Your task to perform on an android device: find which apps use the phone's location Image 0: 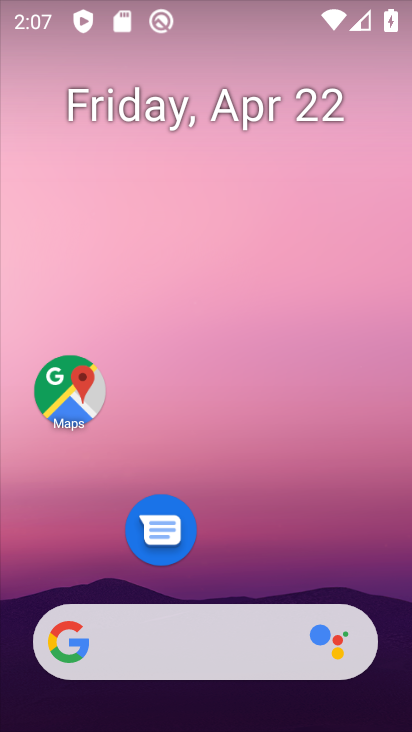
Step 0: drag from (245, 545) to (195, 14)
Your task to perform on an android device: find which apps use the phone's location Image 1: 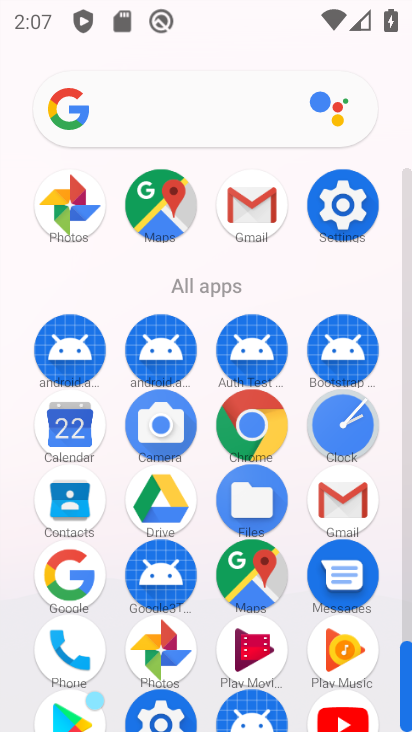
Step 1: click (348, 197)
Your task to perform on an android device: find which apps use the phone's location Image 2: 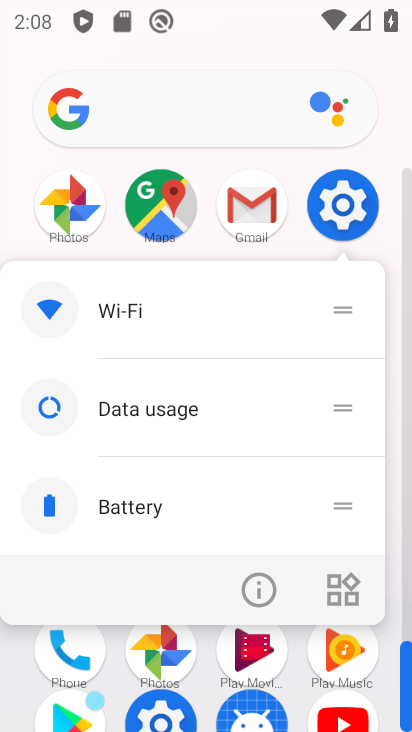
Step 2: click (331, 207)
Your task to perform on an android device: find which apps use the phone's location Image 3: 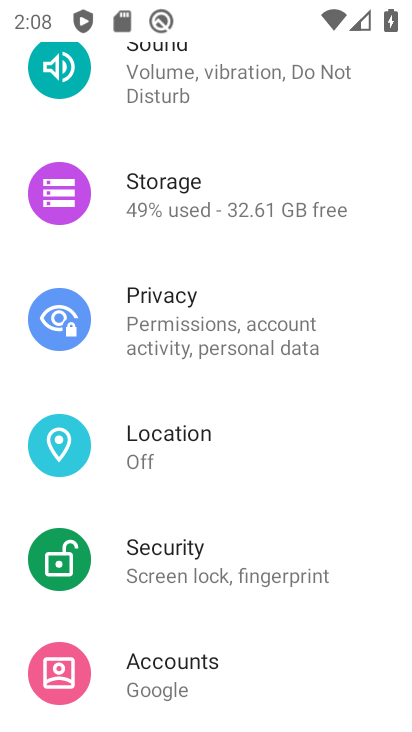
Step 3: click (144, 438)
Your task to perform on an android device: find which apps use the phone's location Image 4: 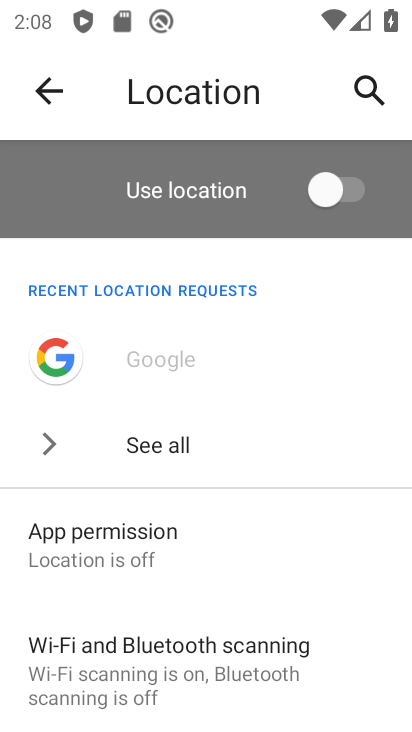
Step 4: click (121, 449)
Your task to perform on an android device: find which apps use the phone's location Image 5: 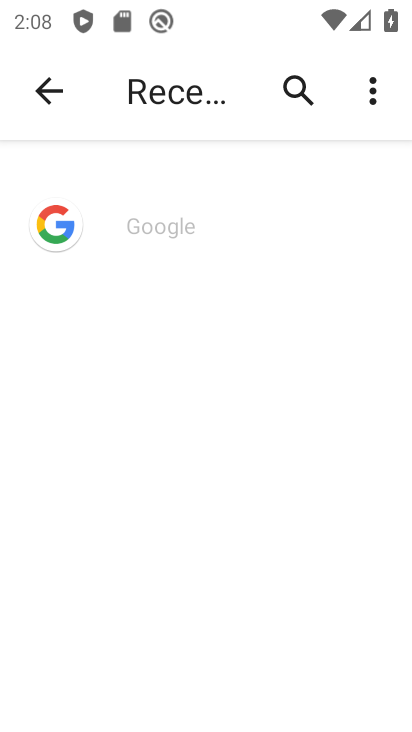
Step 5: task complete